Your task to perform on an android device: open app "LiveIn - Share Your Moment" Image 0: 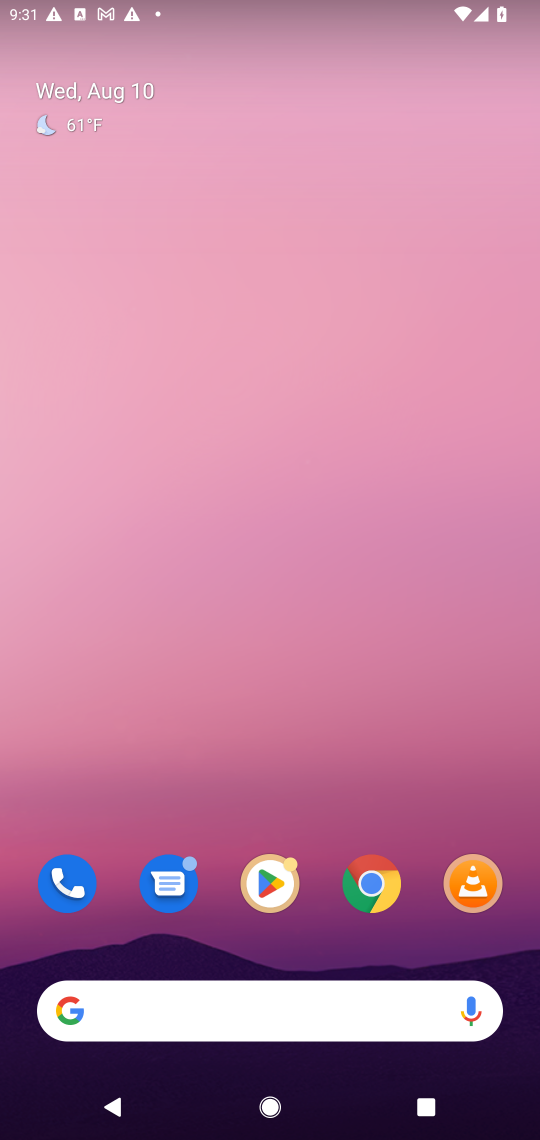
Step 0: click (255, 872)
Your task to perform on an android device: open app "LiveIn - Share Your Moment" Image 1: 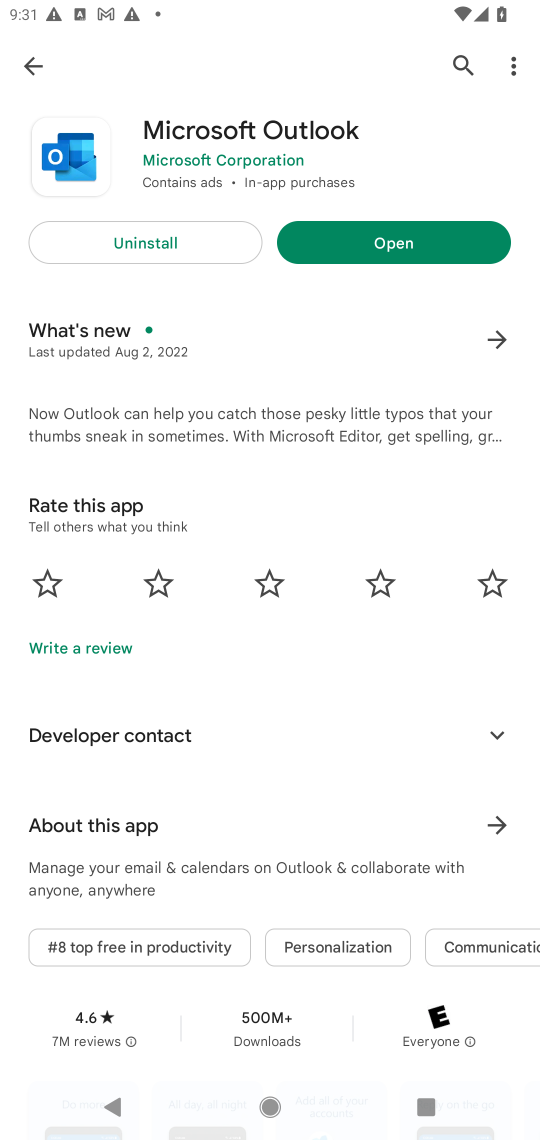
Step 1: click (449, 95)
Your task to perform on an android device: open app "LiveIn - Share Your Moment" Image 2: 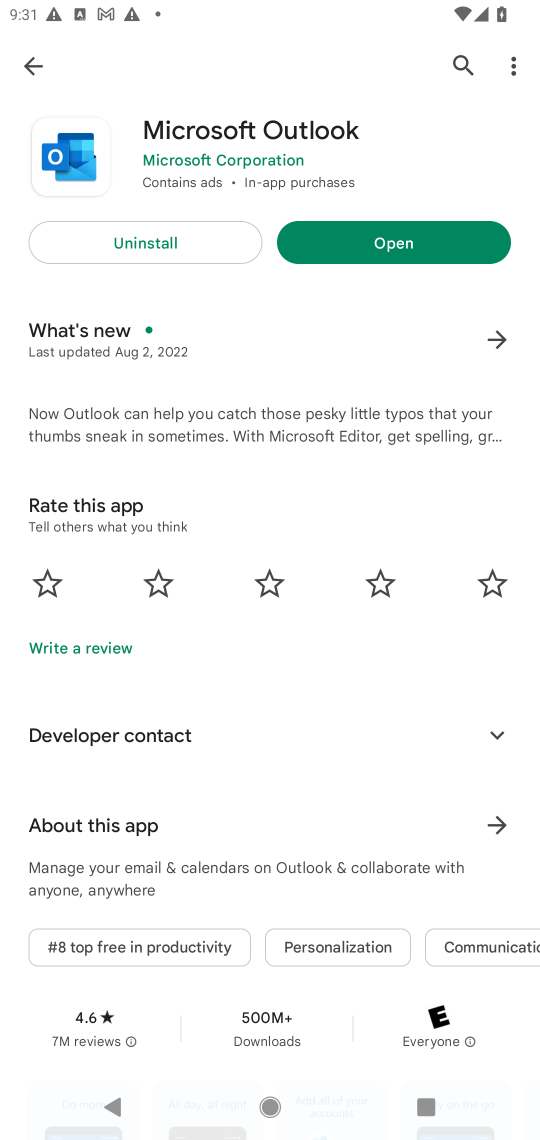
Step 2: click (454, 74)
Your task to perform on an android device: open app "LiveIn - Share Your Moment" Image 3: 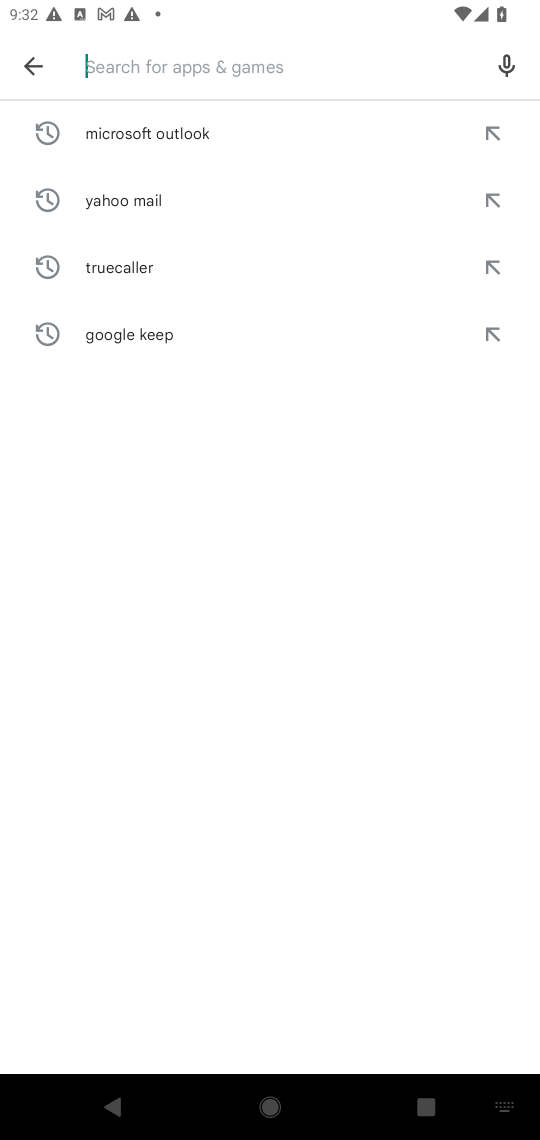
Step 3: type "LiveIn - Share Your Moment"
Your task to perform on an android device: open app "LiveIn - Share Your Moment" Image 4: 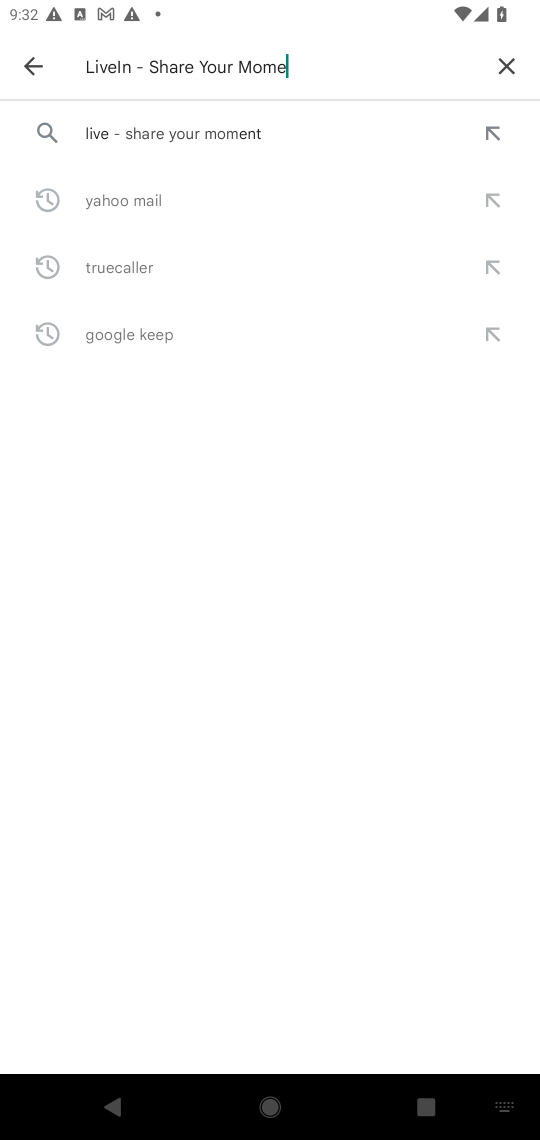
Step 4: type ""
Your task to perform on an android device: open app "LiveIn - Share Your Moment" Image 5: 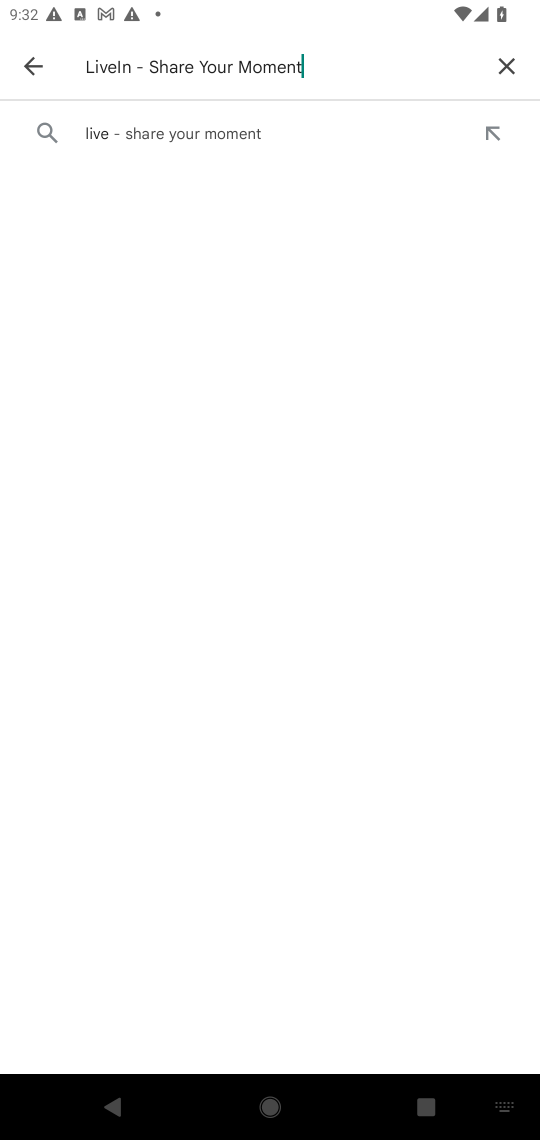
Step 5: click (160, 131)
Your task to perform on an android device: open app "LiveIn - Share Your Moment" Image 6: 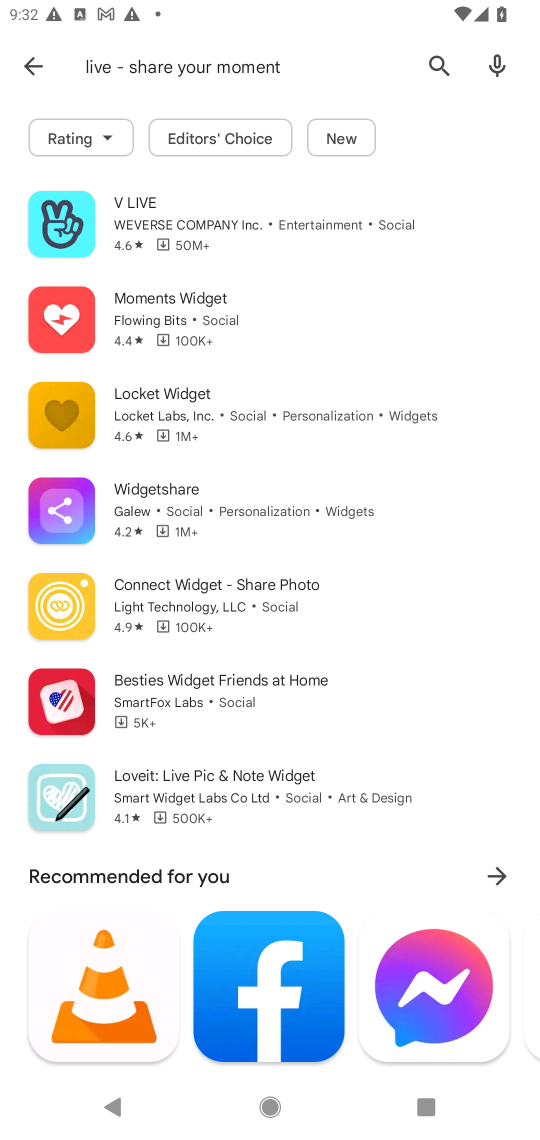
Step 6: task complete